Your task to perform on an android device: set an alarm Image 0: 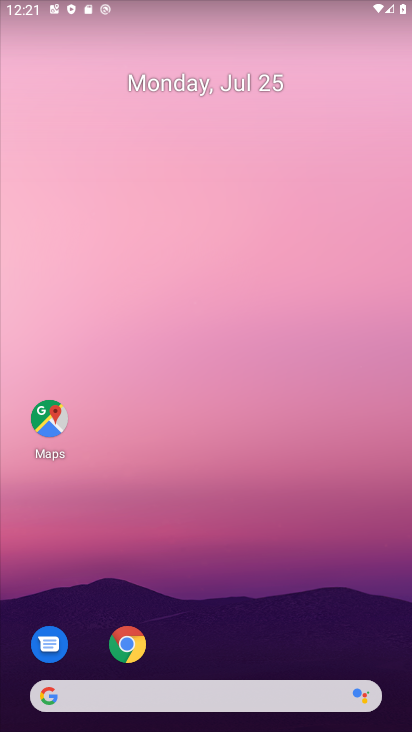
Step 0: drag from (368, 626) to (168, 12)
Your task to perform on an android device: set an alarm Image 1: 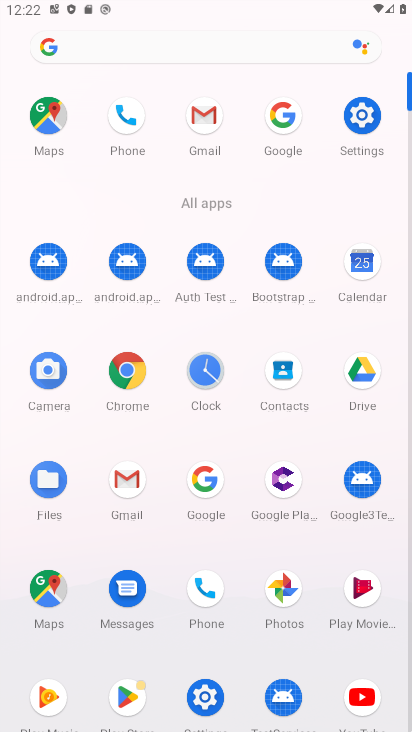
Step 1: click (194, 401)
Your task to perform on an android device: set an alarm Image 2: 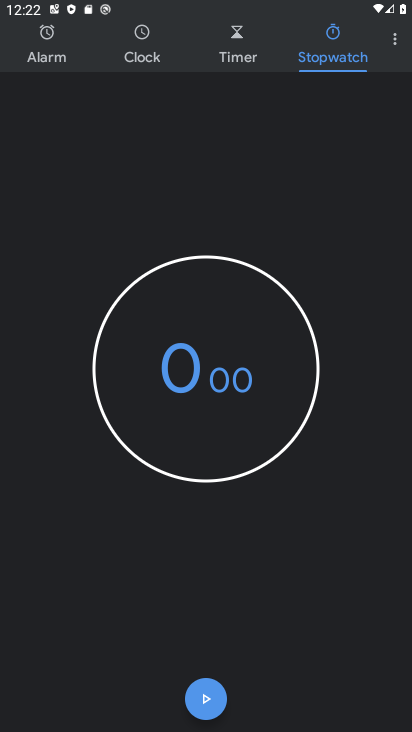
Step 2: click (44, 43)
Your task to perform on an android device: set an alarm Image 3: 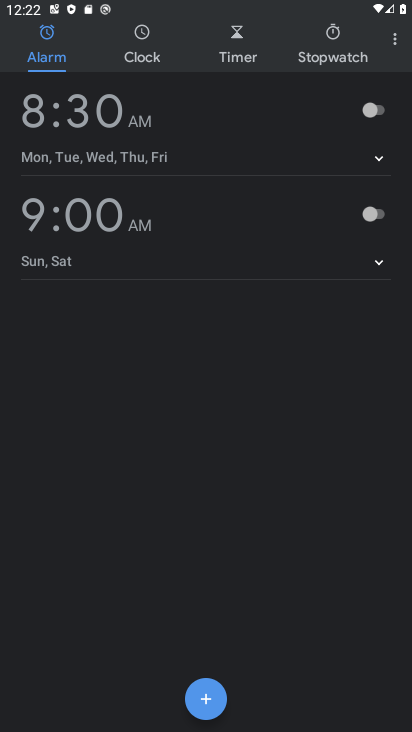
Step 3: click (386, 109)
Your task to perform on an android device: set an alarm Image 4: 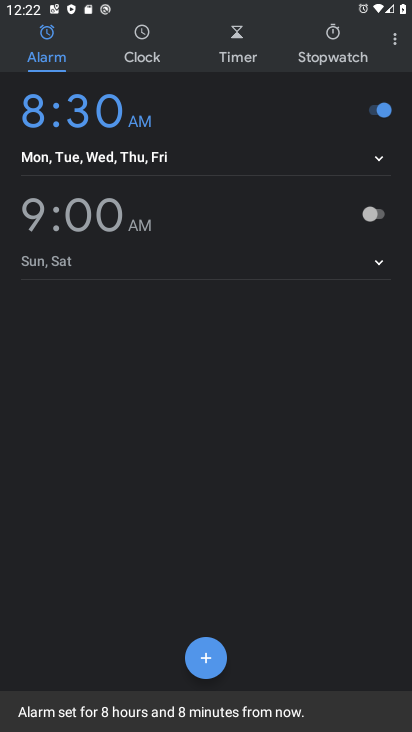
Step 4: task complete